Your task to perform on an android device: turn off data saver in the chrome app Image 0: 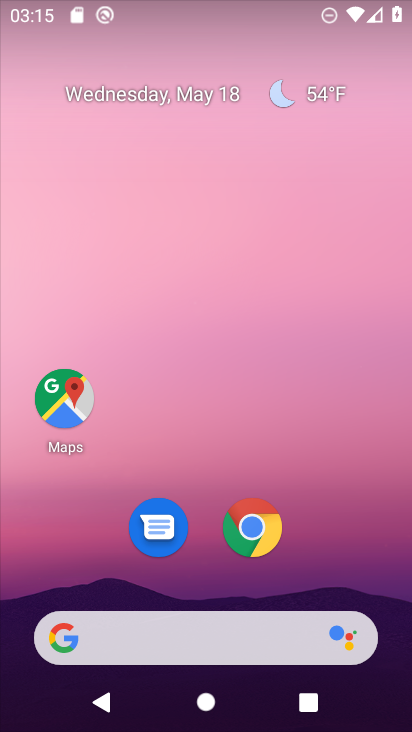
Step 0: click (241, 538)
Your task to perform on an android device: turn off data saver in the chrome app Image 1: 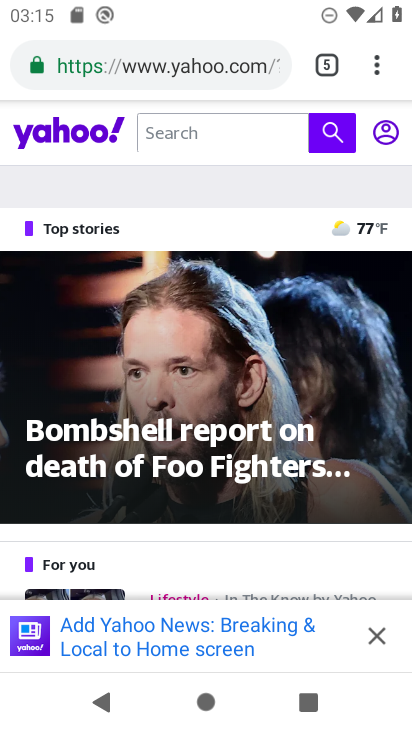
Step 1: click (380, 71)
Your task to perform on an android device: turn off data saver in the chrome app Image 2: 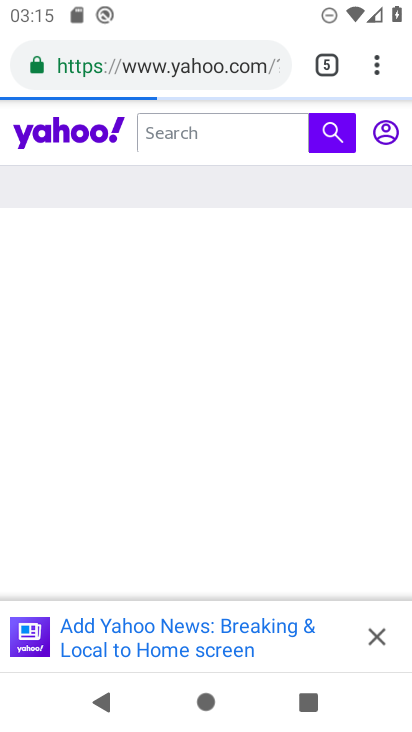
Step 2: drag from (379, 71) to (126, 581)
Your task to perform on an android device: turn off data saver in the chrome app Image 3: 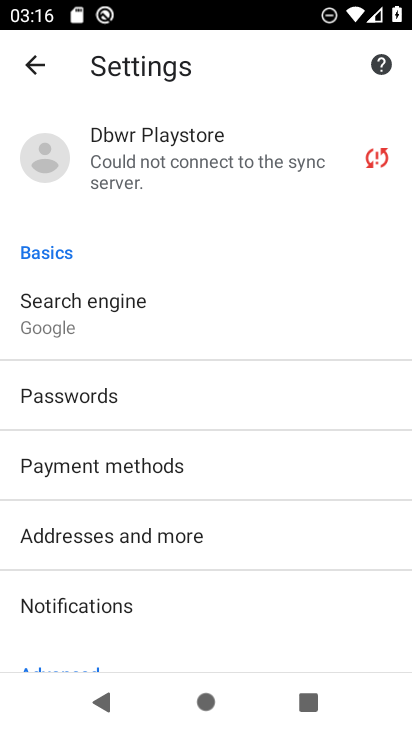
Step 3: click (46, 68)
Your task to perform on an android device: turn off data saver in the chrome app Image 4: 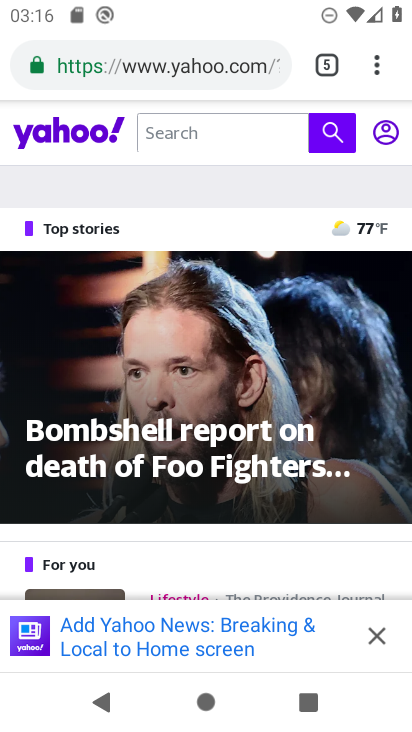
Step 4: drag from (377, 70) to (195, 592)
Your task to perform on an android device: turn off data saver in the chrome app Image 5: 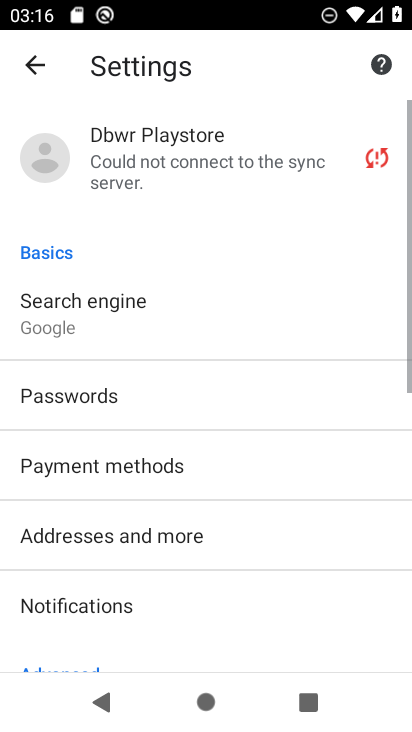
Step 5: drag from (253, 561) to (219, 17)
Your task to perform on an android device: turn off data saver in the chrome app Image 6: 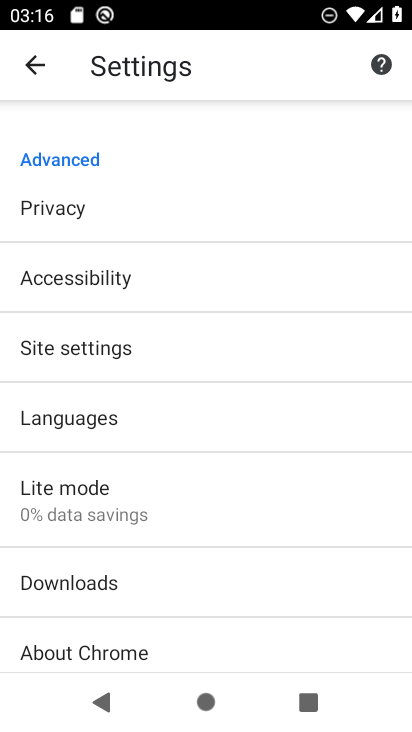
Step 6: click (130, 484)
Your task to perform on an android device: turn off data saver in the chrome app Image 7: 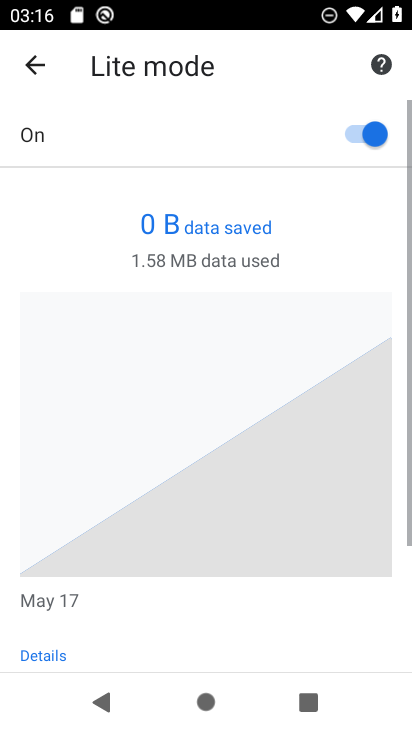
Step 7: click (350, 134)
Your task to perform on an android device: turn off data saver in the chrome app Image 8: 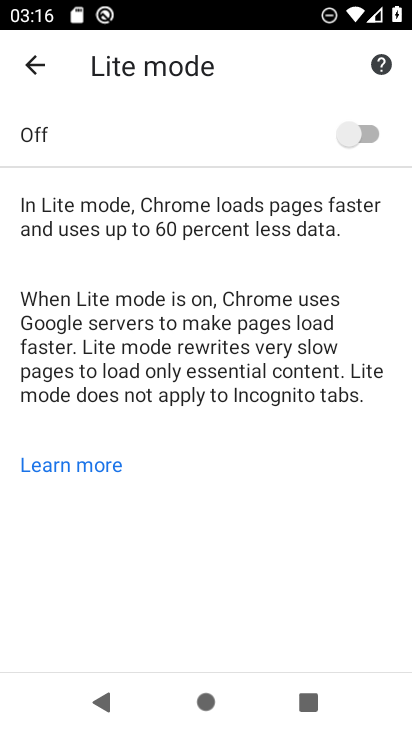
Step 8: task complete